Your task to perform on an android device: open sync settings in chrome Image 0: 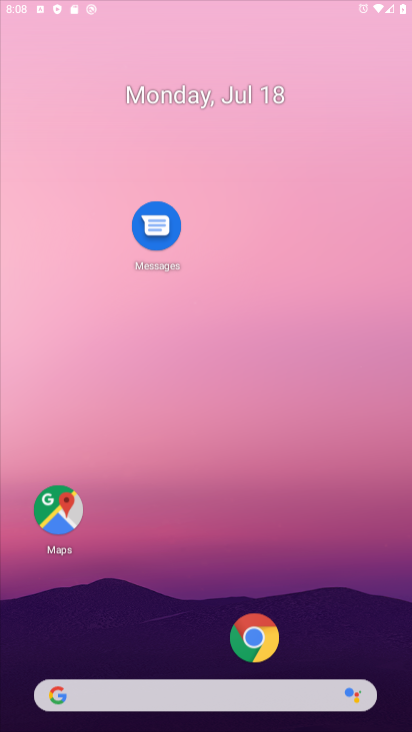
Step 0: press home button
Your task to perform on an android device: open sync settings in chrome Image 1: 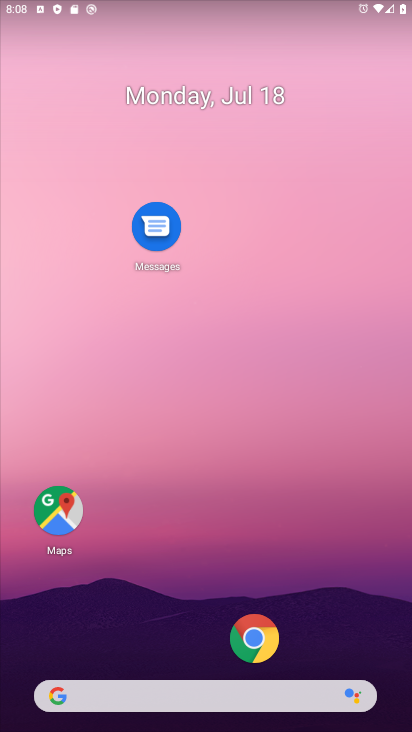
Step 1: drag from (319, 591) to (304, 70)
Your task to perform on an android device: open sync settings in chrome Image 2: 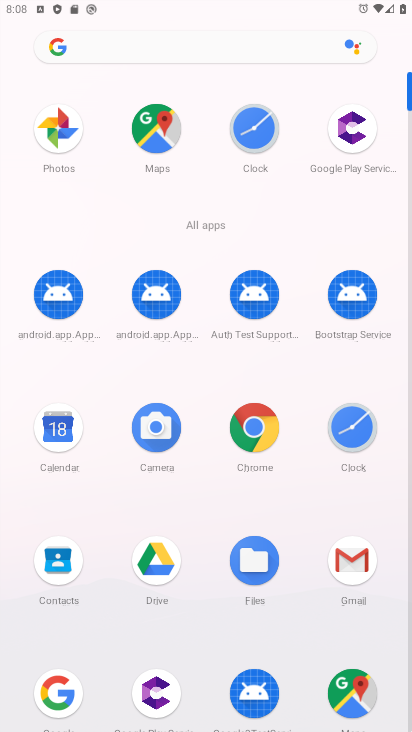
Step 2: click (254, 416)
Your task to perform on an android device: open sync settings in chrome Image 3: 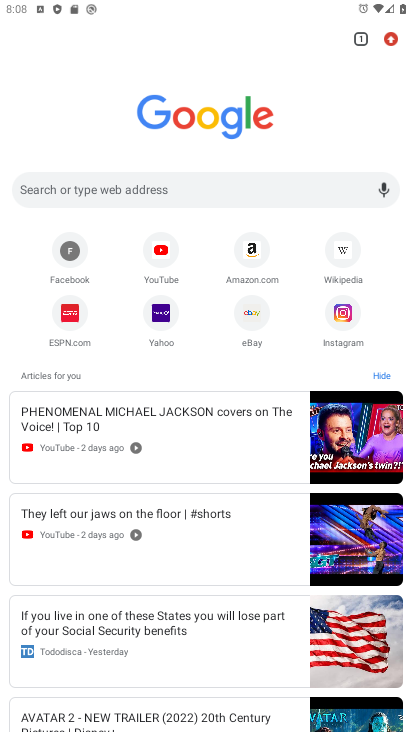
Step 3: click (387, 37)
Your task to perform on an android device: open sync settings in chrome Image 4: 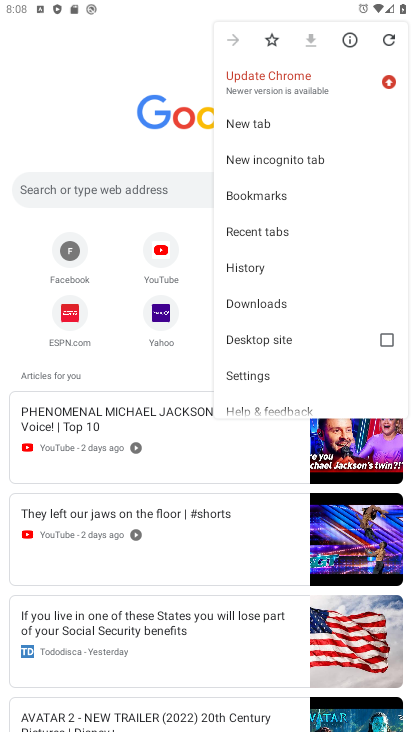
Step 4: click (275, 369)
Your task to perform on an android device: open sync settings in chrome Image 5: 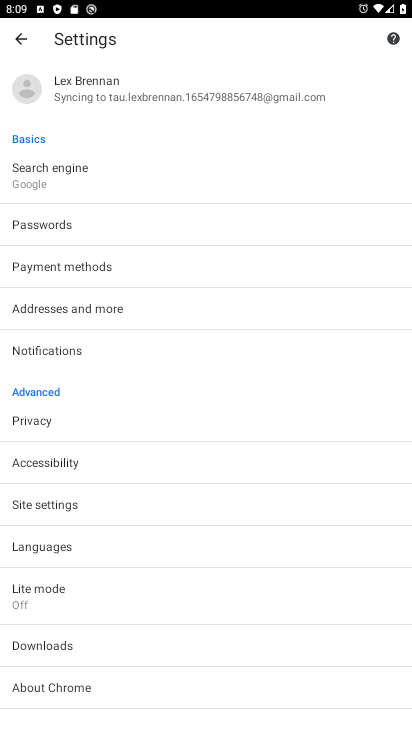
Step 5: click (87, 94)
Your task to perform on an android device: open sync settings in chrome Image 6: 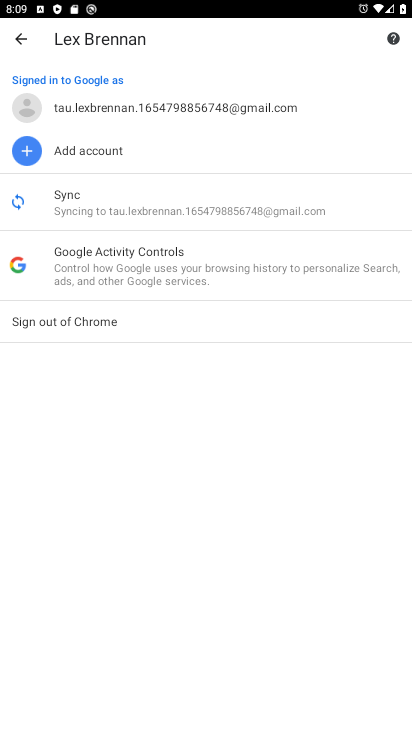
Step 6: click (87, 203)
Your task to perform on an android device: open sync settings in chrome Image 7: 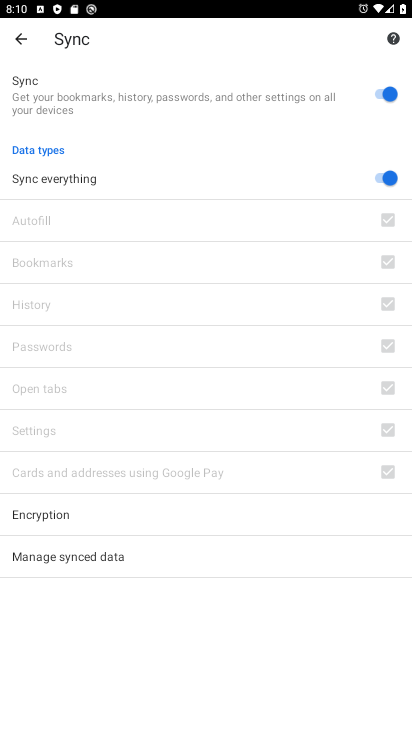
Step 7: task complete